Your task to perform on an android device: set the stopwatch Image 0: 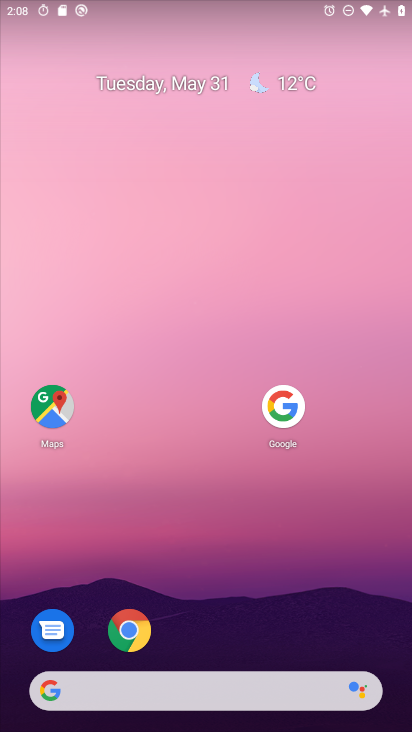
Step 0: press home button
Your task to perform on an android device: set the stopwatch Image 1: 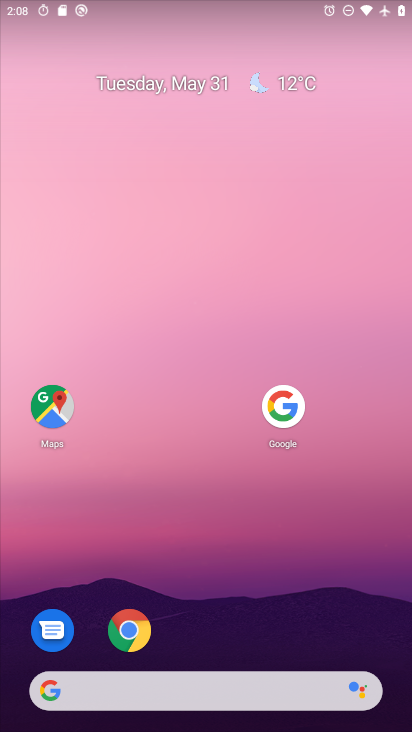
Step 1: drag from (177, 685) to (257, 160)
Your task to perform on an android device: set the stopwatch Image 2: 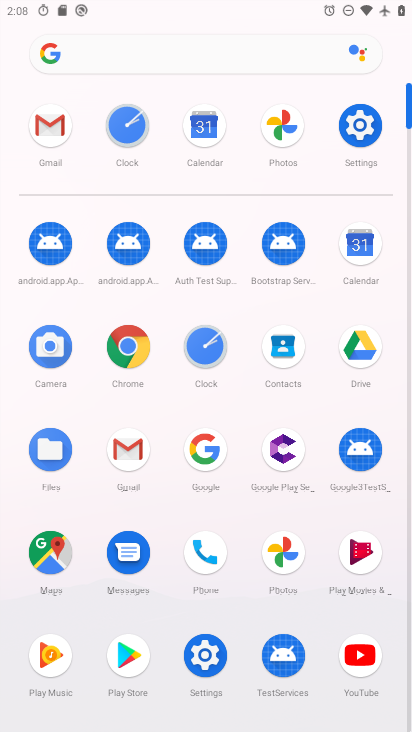
Step 2: click (120, 127)
Your task to perform on an android device: set the stopwatch Image 3: 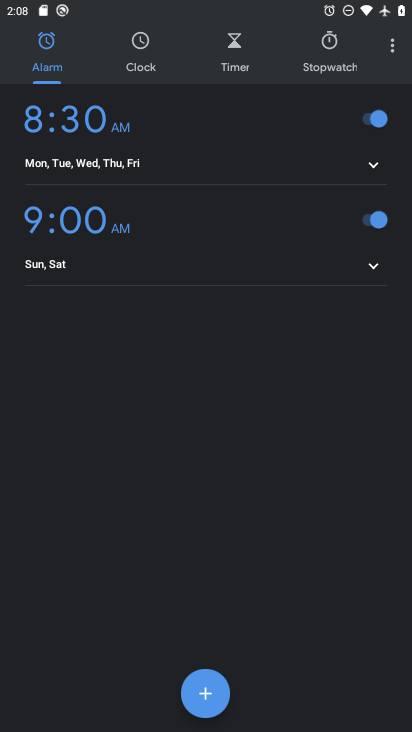
Step 3: click (334, 51)
Your task to perform on an android device: set the stopwatch Image 4: 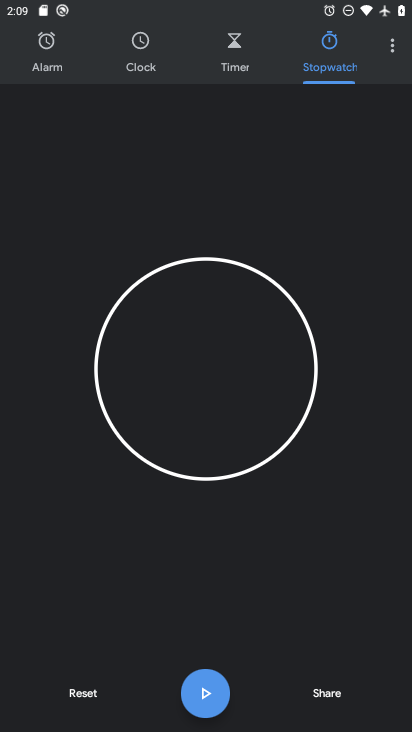
Step 4: click (89, 696)
Your task to perform on an android device: set the stopwatch Image 5: 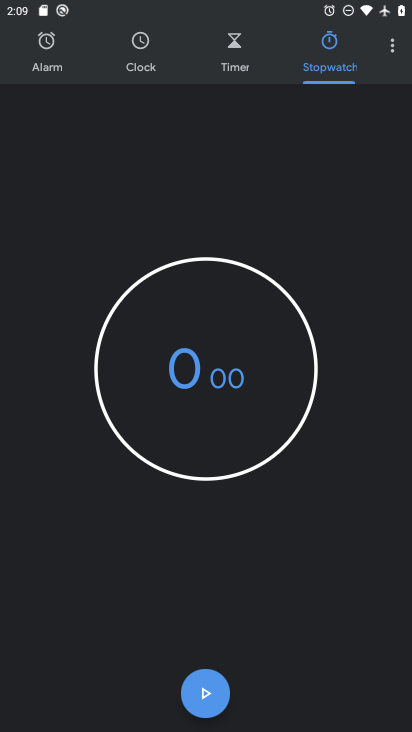
Step 5: click (190, 366)
Your task to perform on an android device: set the stopwatch Image 6: 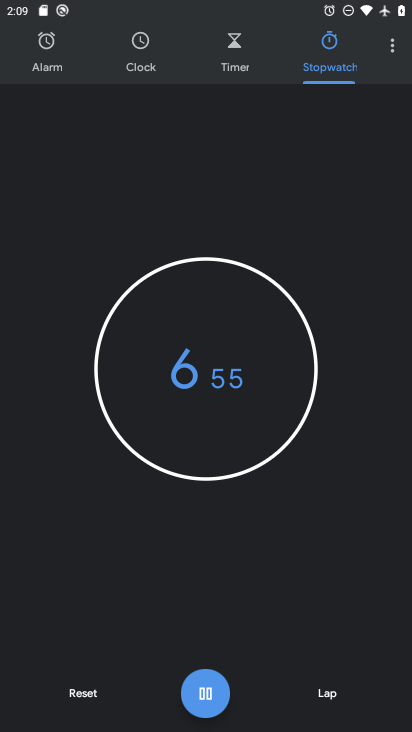
Step 6: click (190, 366)
Your task to perform on an android device: set the stopwatch Image 7: 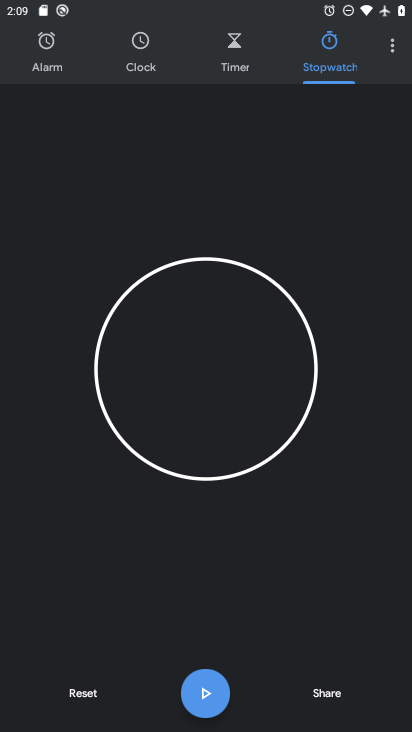
Step 7: task complete